Your task to perform on an android device: Open Wikipedia Image 0: 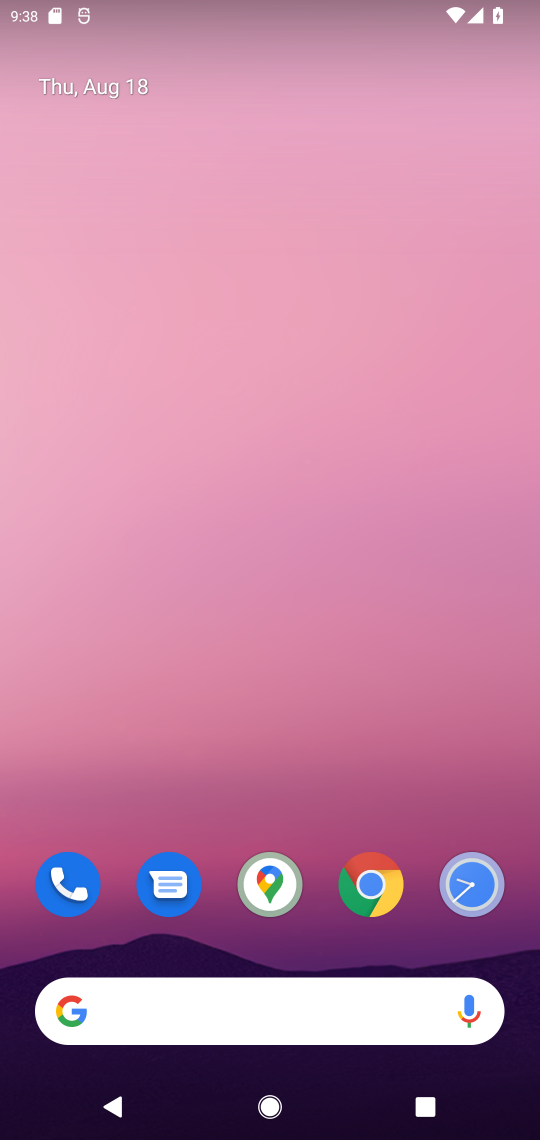
Step 0: click (248, 992)
Your task to perform on an android device: Open Wikipedia Image 1: 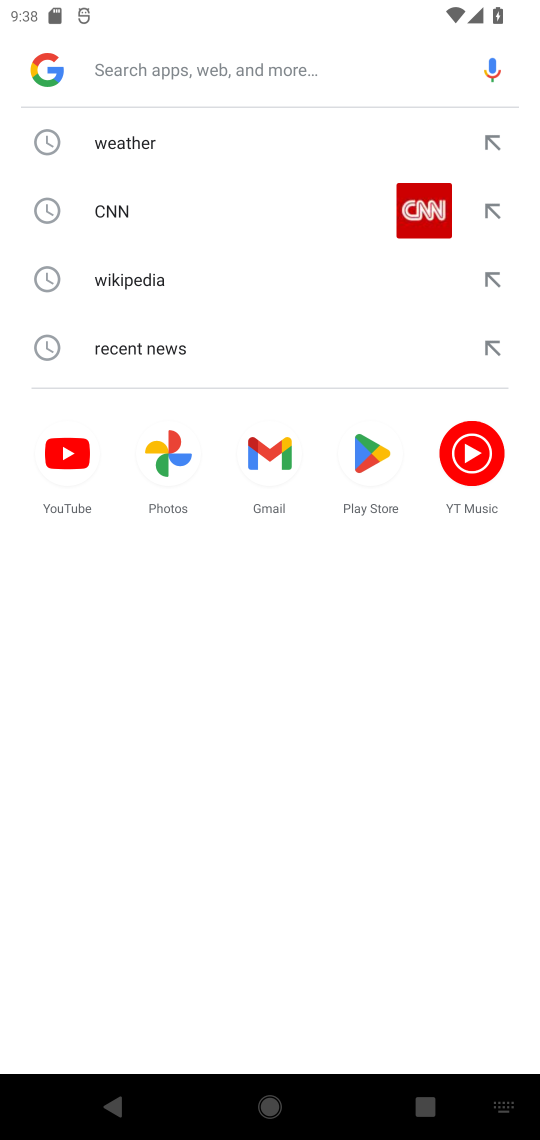
Step 1: press home button
Your task to perform on an android device: Open Wikipedia Image 2: 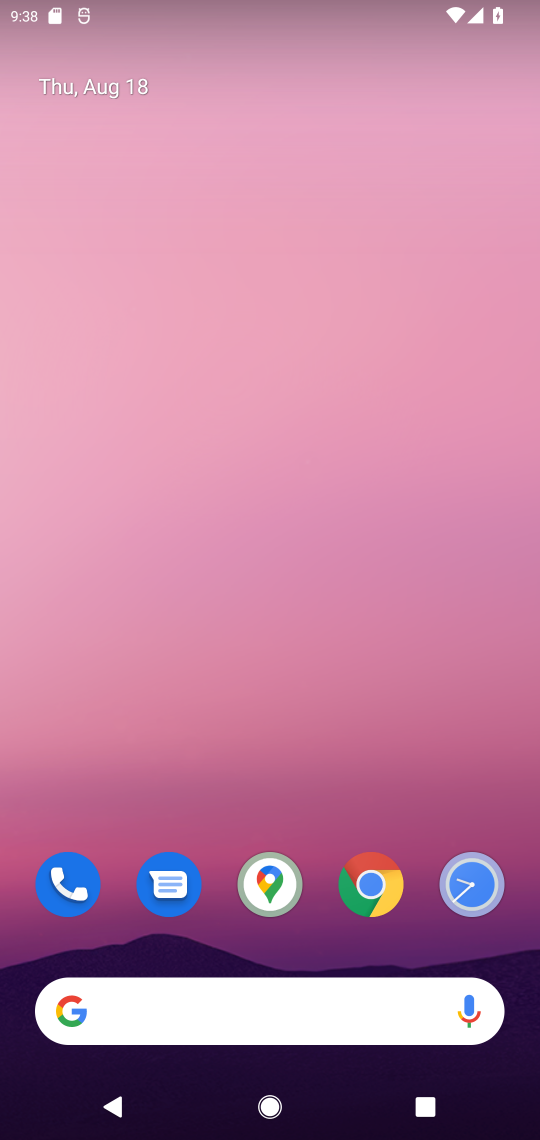
Step 2: click (361, 876)
Your task to perform on an android device: Open Wikipedia Image 3: 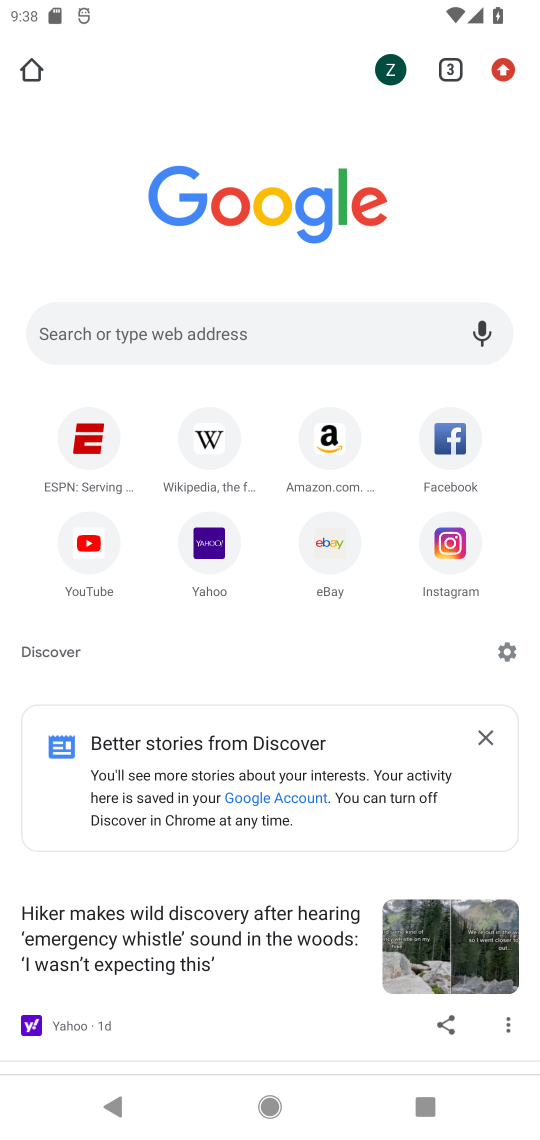
Step 3: click (224, 434)
Your task to perform on an android device: Open Wikipedia Image 4: 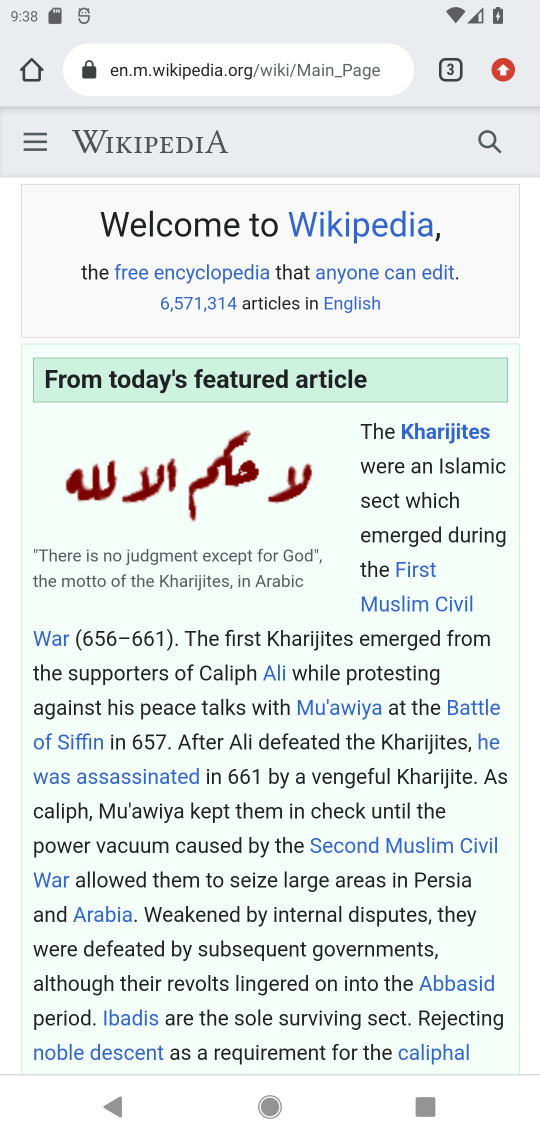
Step 4: task complete